Your task to perform on an android device: visit the assistant section in the google photos Image 0: 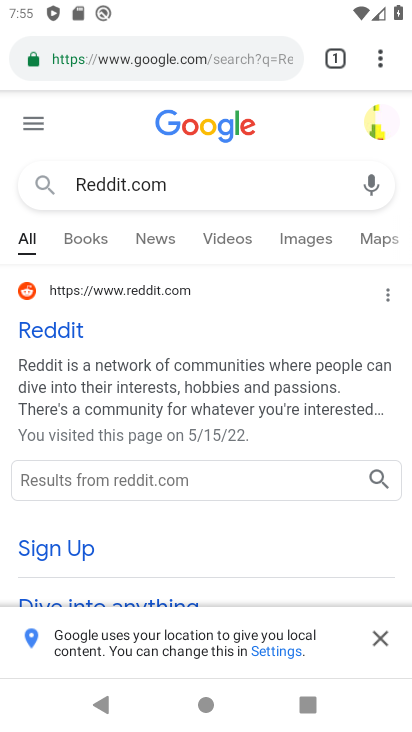
Step 0: press home button
Your task to perform on an android device: visit the assistant section in the google photos Image 1: 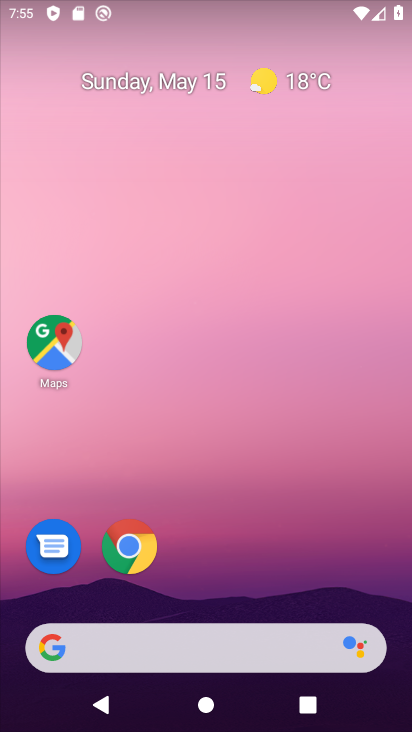
Step 1: drag from (237, 618) to (224, 87)
Your task to perform on an android device: visit the assistant section in the google photos Image 2: 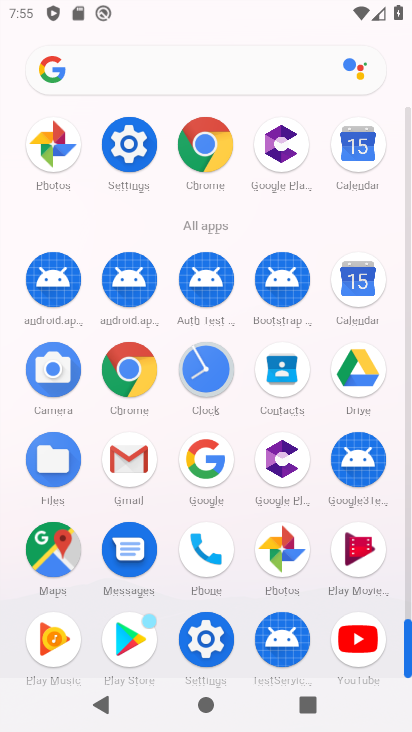
Step 2: drag from (186, 596) to (256, 278)
Your task to perform on an android device: visit the assistant section in the google photos Image 3: 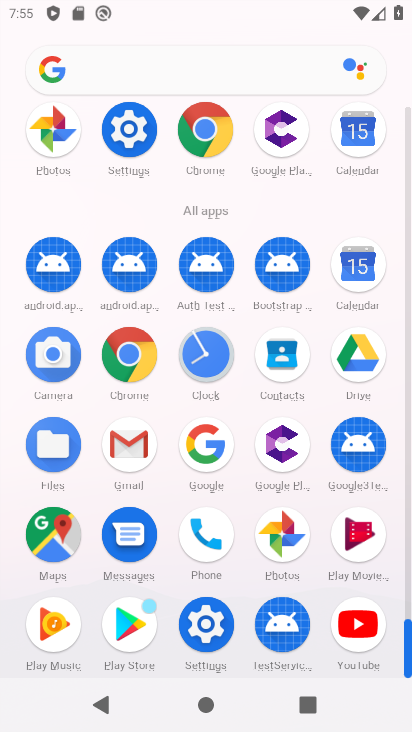
Step 3: click (285, 553)
Your task to perform on an android device: visit the assistant section in the google photos Image 4: 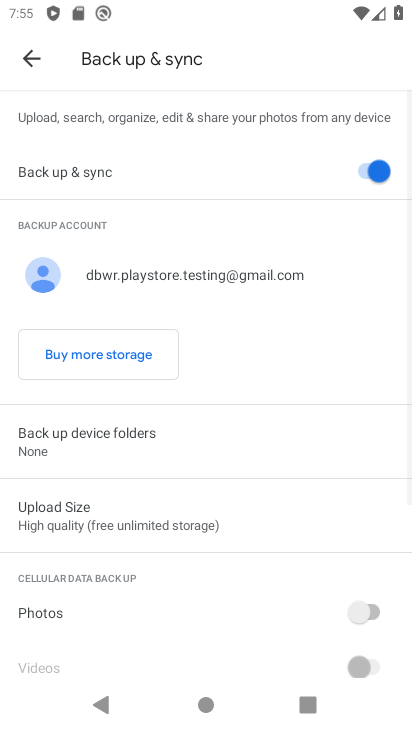
Step 4: click (22, 66)
Your task to perform on an android device: visit the assistant section in the google photos Image 5: 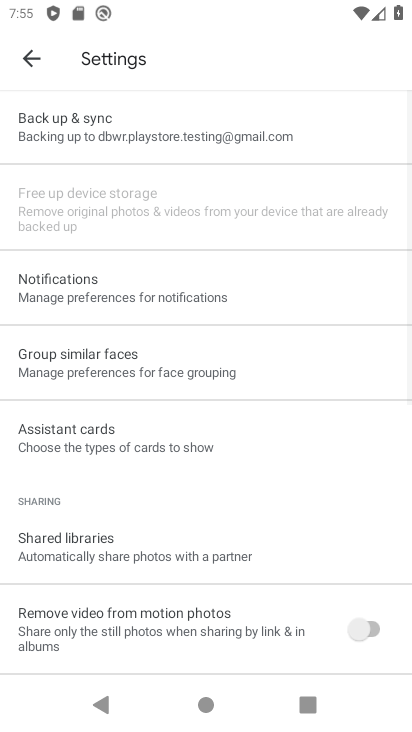
Step 5: click (40, 52)
Your task to perform on an android device: visit the assistant section in the google photos Image 6: 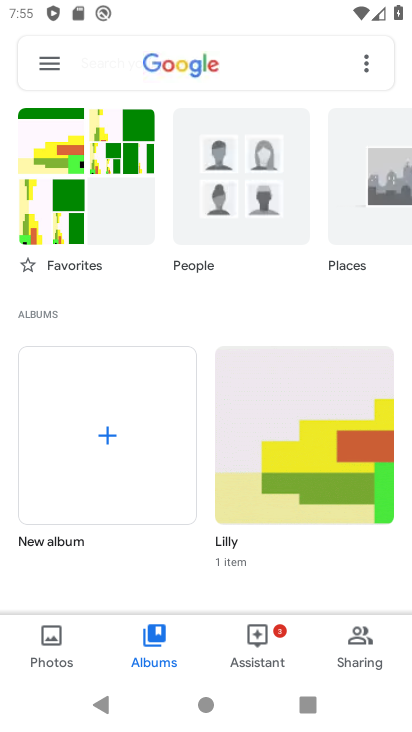
Step 6: click (256, 647)
Your task to perform on an android device: visit the assistant section in the google photos Image 7: 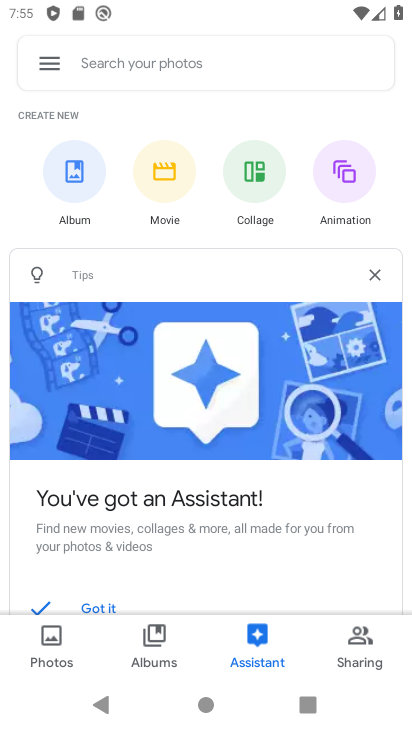
Step 7: task complete